Your task to perform on an android device: see sites visited before in the chrome app Image 0: 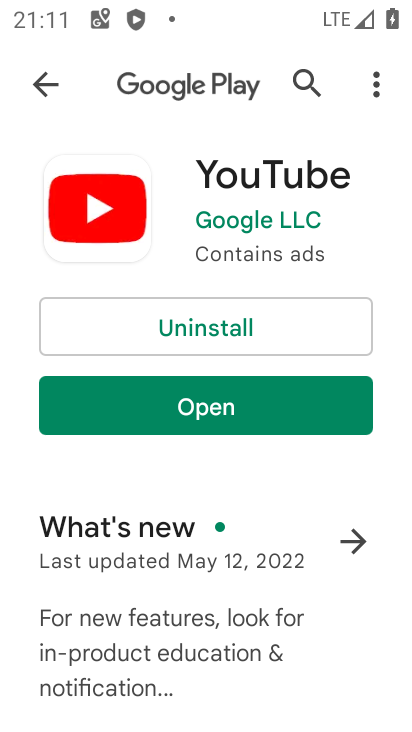
Step 0: press home button
Your task to perform on an android device: see sites visited before in the chrome app Image 1: 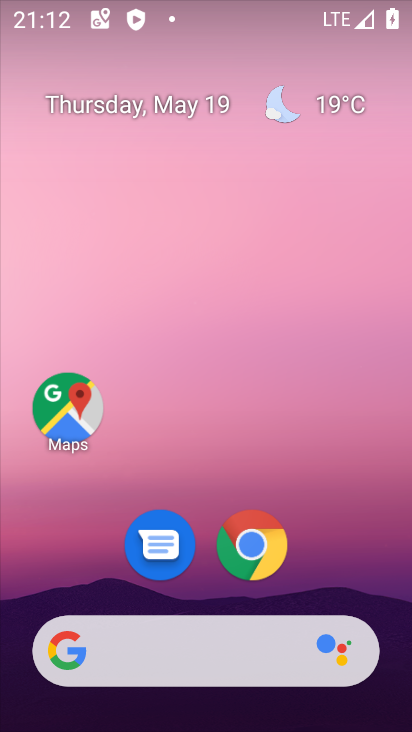
Step 1: click (271, 533)
Your task to perform on an android device: see sites visited before in the chrome app Image 2: 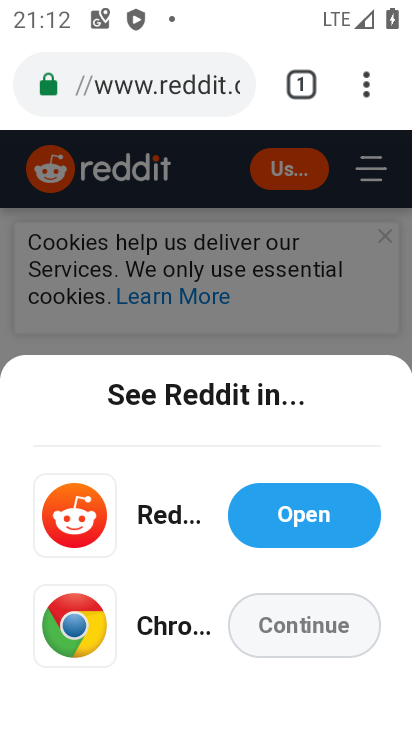
Step 2: click (361, 92)
Your task to perform on an android device: see sites visited before in the chrome app Image 3: 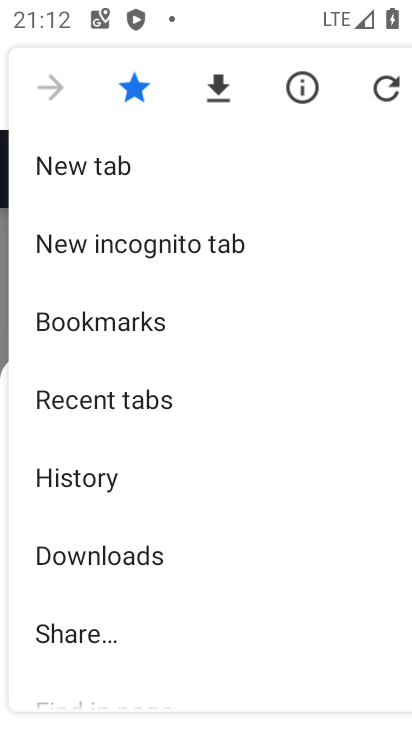
Step 3: click (179, 400)
Your task to perform on an android device: see sites visited before in the chrome app Image 4: 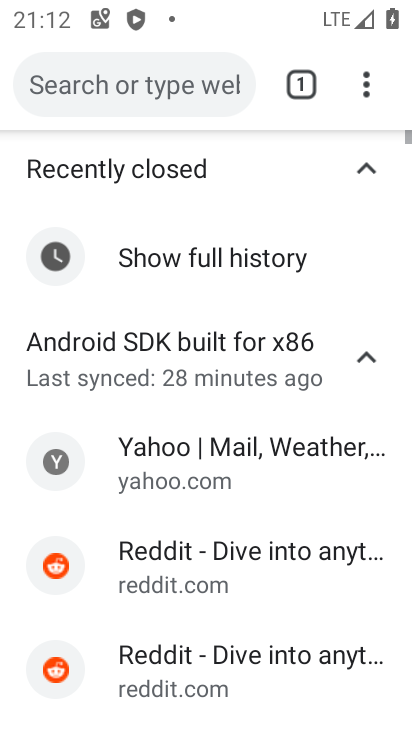
Step 4: task complete